Your task to perform on an android device: Check the news Image 0: 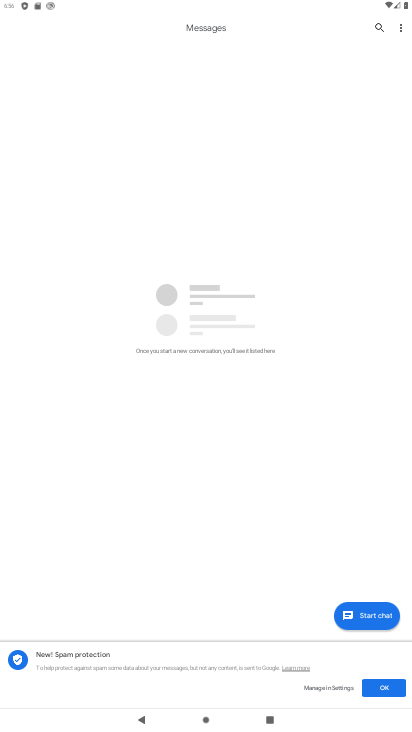
Step 0: press home button
Your task to perform on an android device: Check the news Image 1: 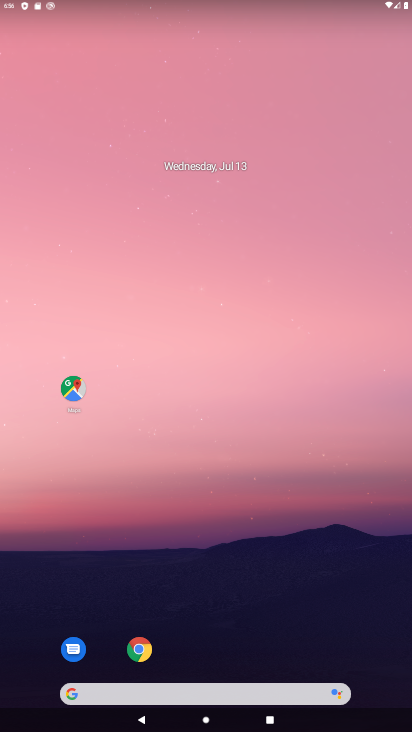
Step 1: drag from (216, 691) to (248, 151)
Your task to perform on an android device: Check the news Image 2: 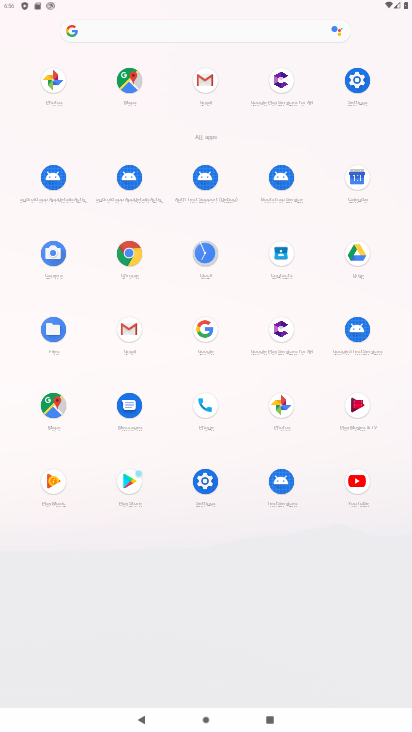
Step 2: click (204, 331)
Your task to perform on an android device: Check the news Image 3: 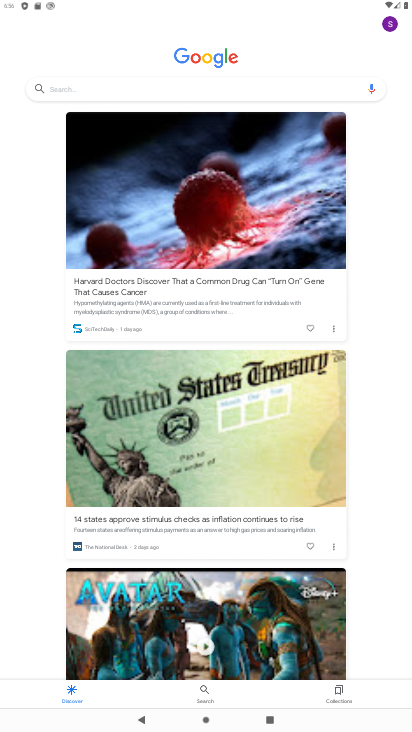
Step 3: click (214, 85)
Your task to perform on an android device: Check the news Image 4: 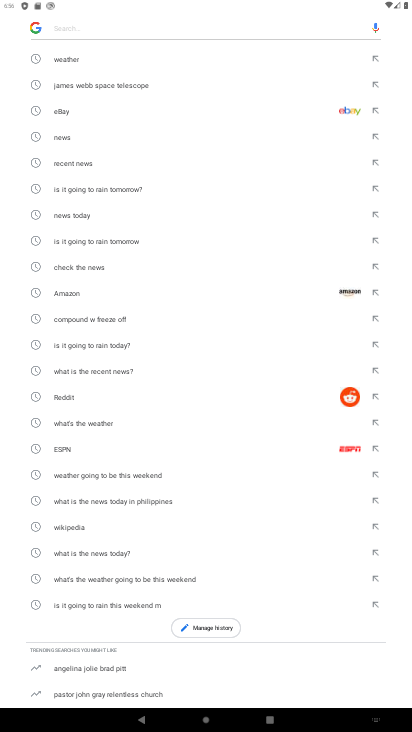
Step 4: type "news"
Your task to perform on an android device: Check the news Image 5: 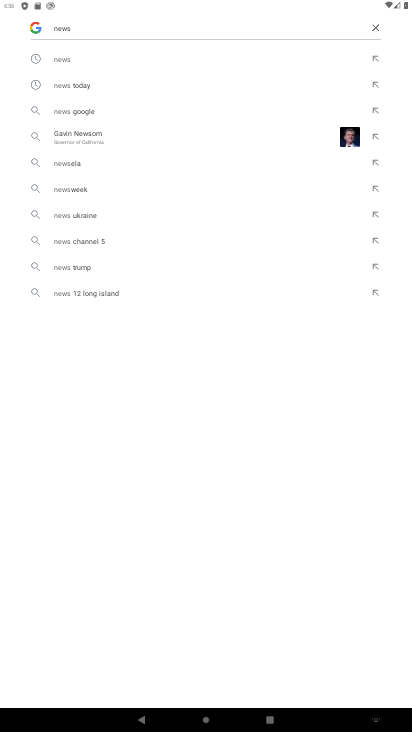
Step 5: click (63, 63)
Your task to perform on an android device: Check the news Image 6: 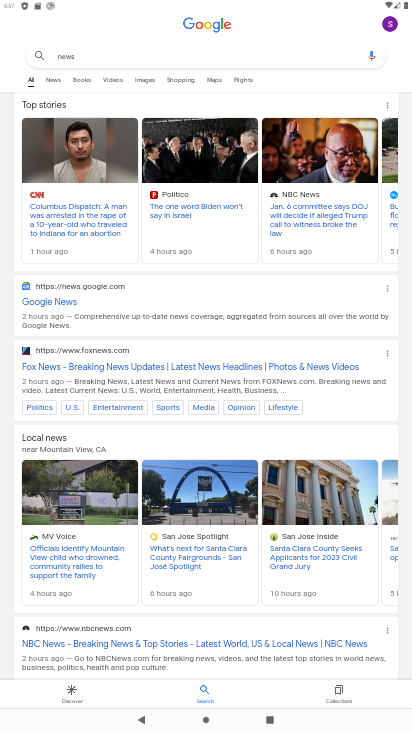
Step 6: task complete